Your task to perform on an android device: Check the news Image 0: 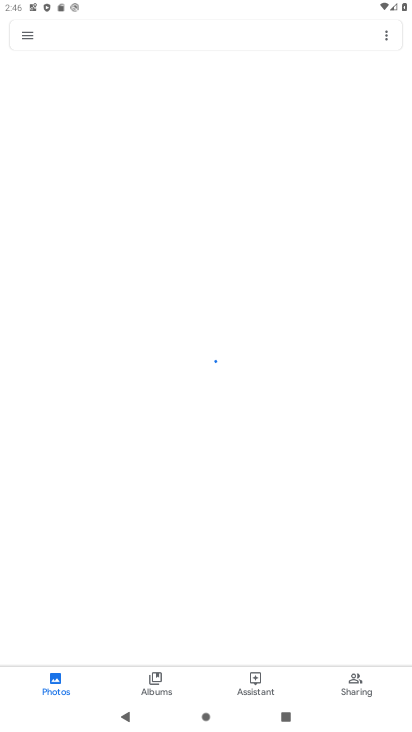
Step 0: press home button
Your task to perform on an android device: Check the news Image 1: 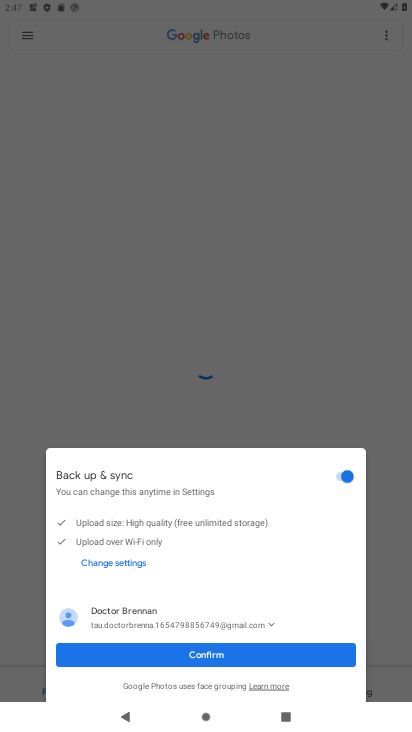
Step 1: press home button
Your task to perform on an android device: Check the news Image 2: 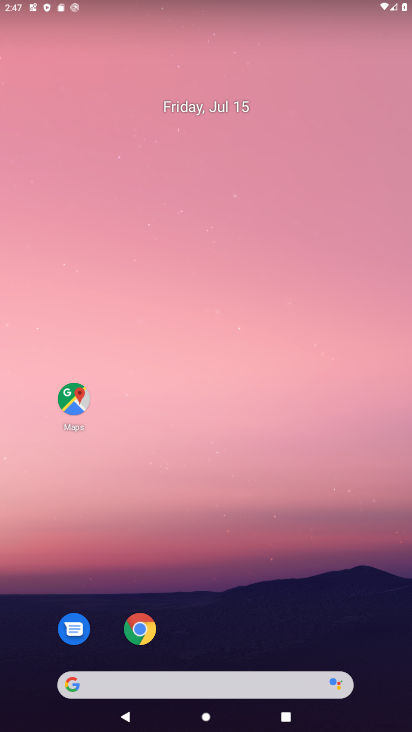
Step 2: click (187, 690)
Your task to perform on an android device: Check the news Image 3: 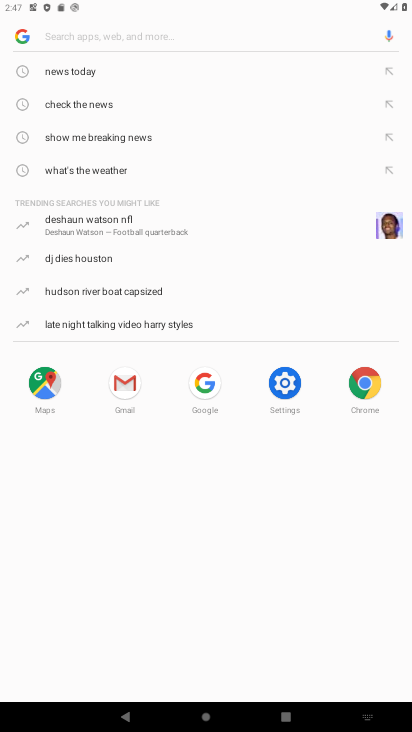
Step 3: click (58, 67)
Your task to perform on an android device: Check the news Image 4: 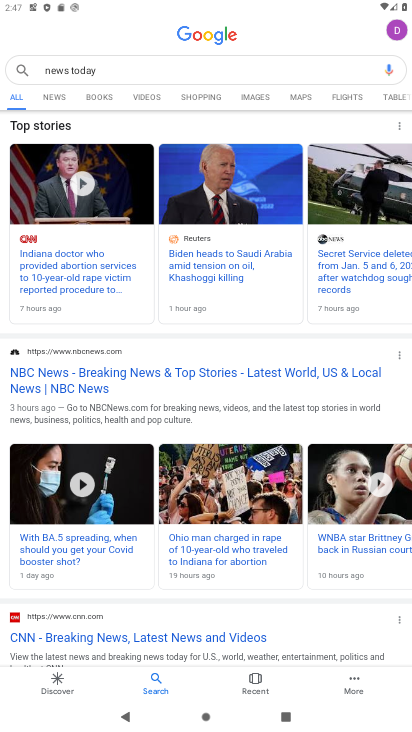
Step 4: click (57, 106)
Your task to perform on an android device: Check the news Image 5: 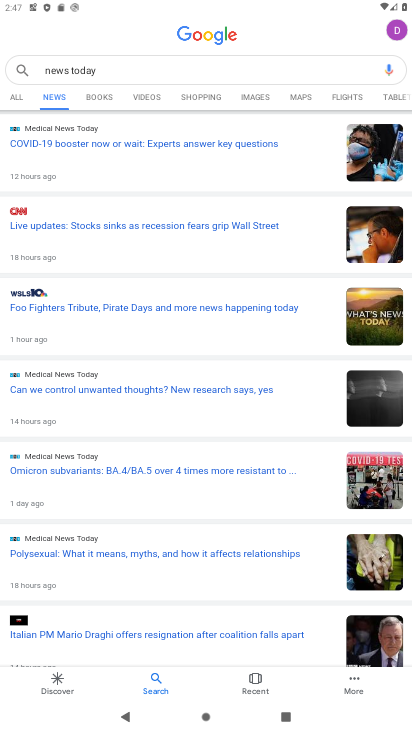
Step 5: task complete